Your task to perform on an android device: change the clock display to analog Image 0: 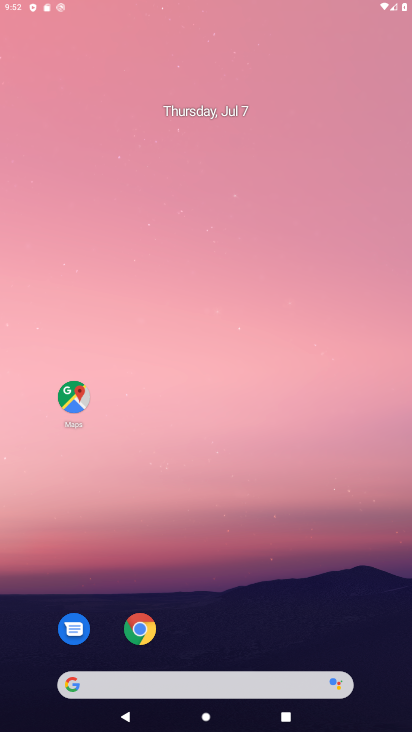
Step 0: press home button
Your task to perform on an android device: change the clock display to analog Image 1: 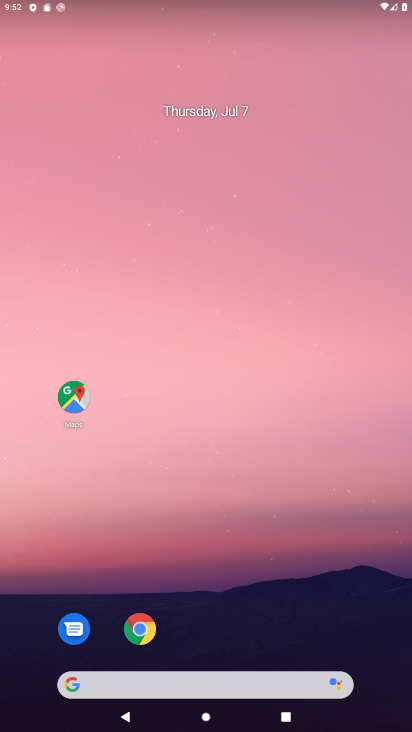
Step 1: drag from (214, 600) to (198, 101)
Your task to perform on an android device: change the clock display to analog Image 2: 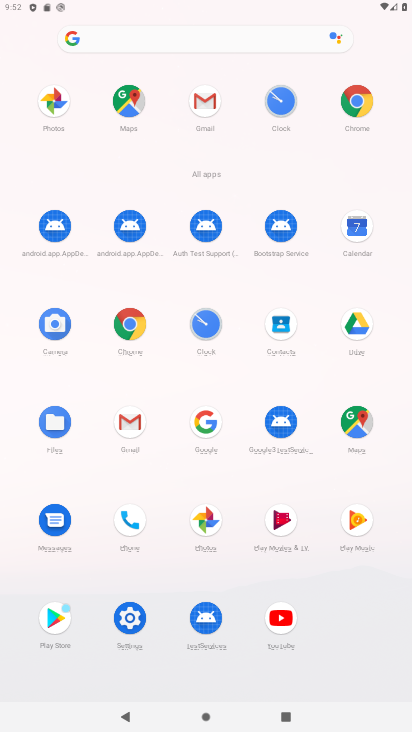
Step 2: click (281, 102)
Your task to perform on an android device: change the clock display to analog Image 3: 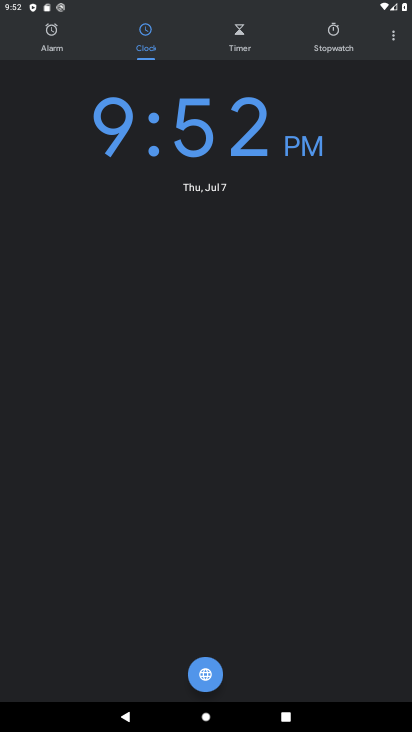
Step 3: click (400, 36)
Your task to perform on an android device: change the clock display to analog Image 4: 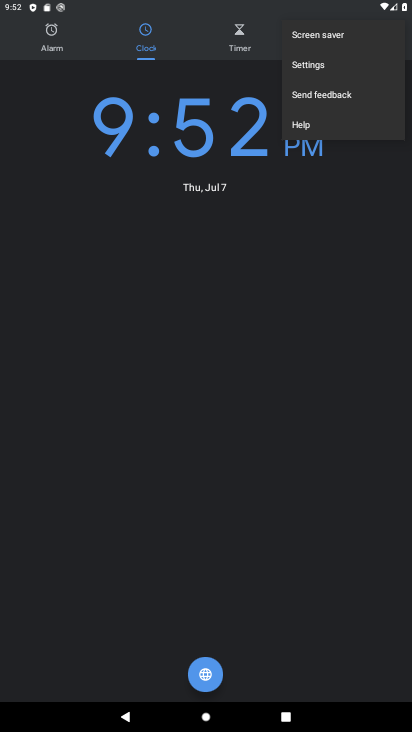
Step 4: click (298, 65)
Your task to perform on an android device: change the clock display to analog Image 5: 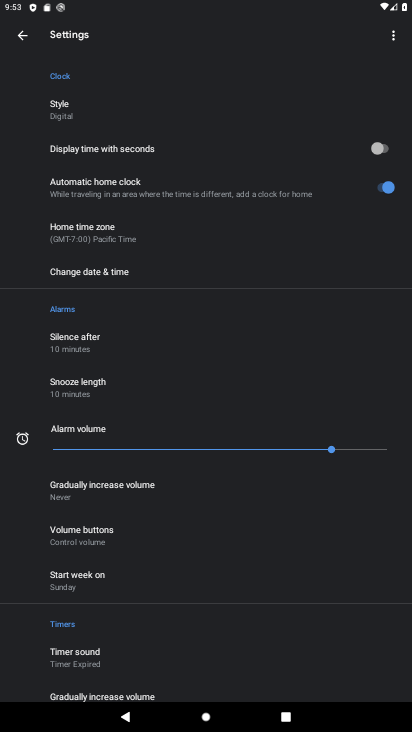
Step 5: click (56, 110)
Your task to perform on an android device: change the clock display to analog Image 6: 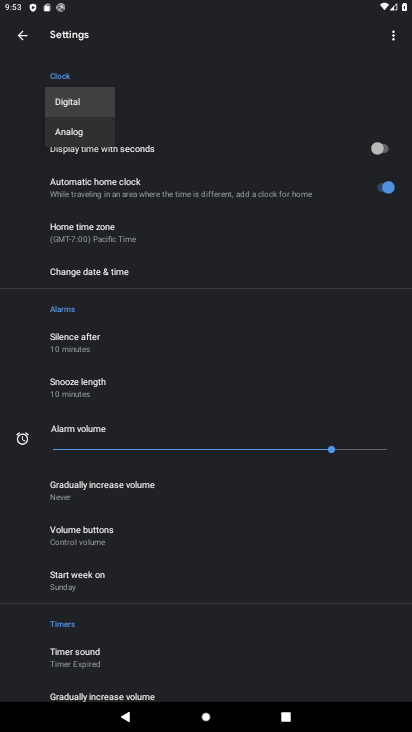
Step 6: click (65, 132)
Your task to perform on an android device: change the clock display to analog Image 7: 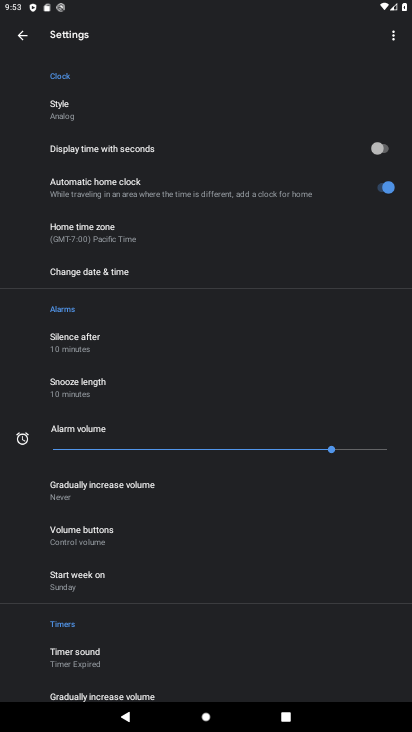
Step 7: task complete